Your task to perform on an android device: see creations saved in the google photos Image 0: 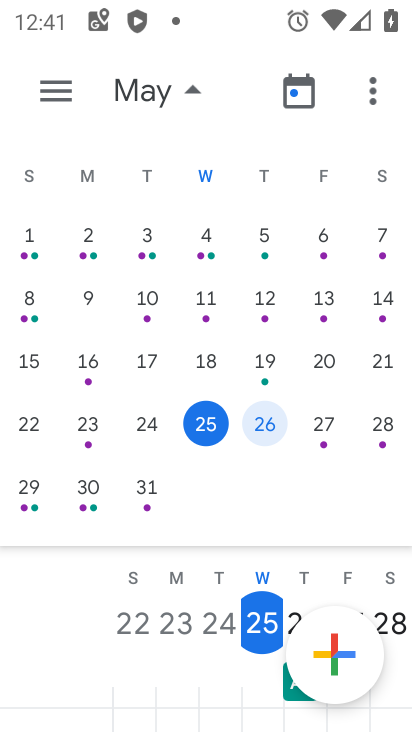
Step 0: press home button
Your task to perform on an android device: see creations saved in the google photos Image 1: 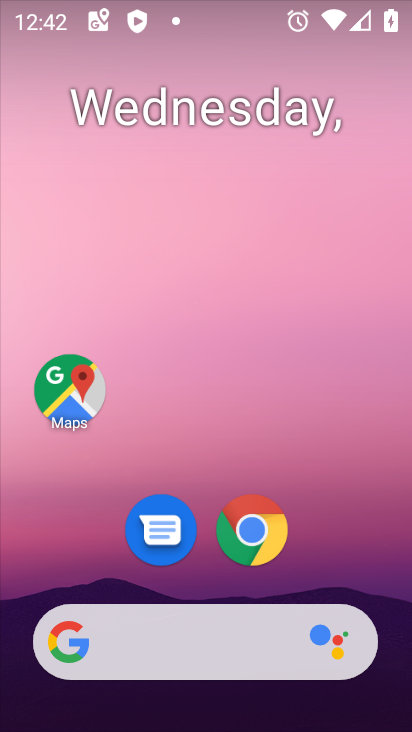
Step 1: drag from (198, 590) to (217, 251)
Your task to perform on an android device: see creations saved in the google photos Image 2: 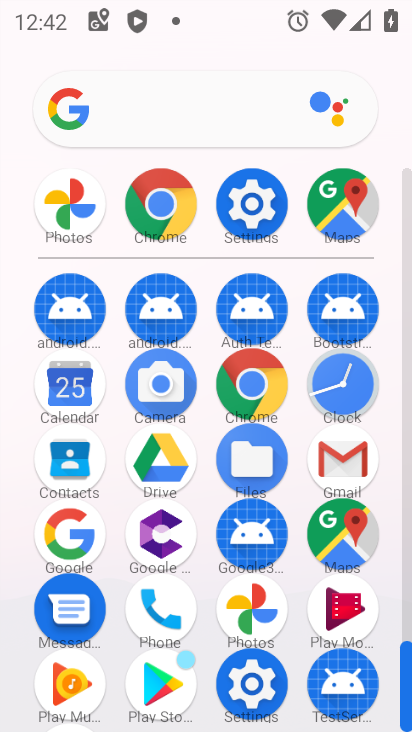
Step 2: click (247, 605)
Your task to perform on an android device: see creations saved in the google photos Image 3: 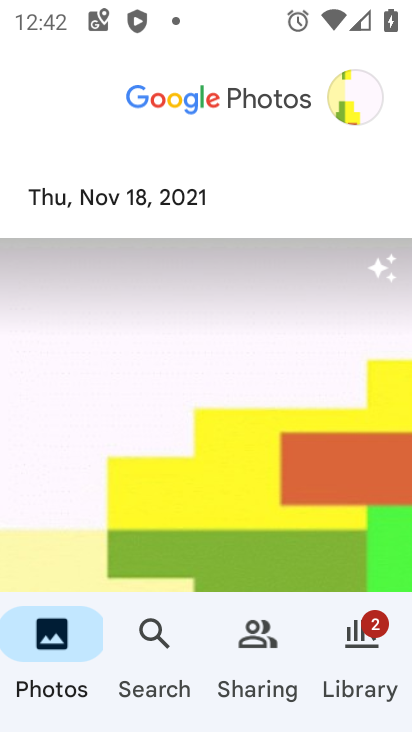
Step 3: click (157, 648)
Your task to perform on an android device: see creations saved in the google photos Image 4: 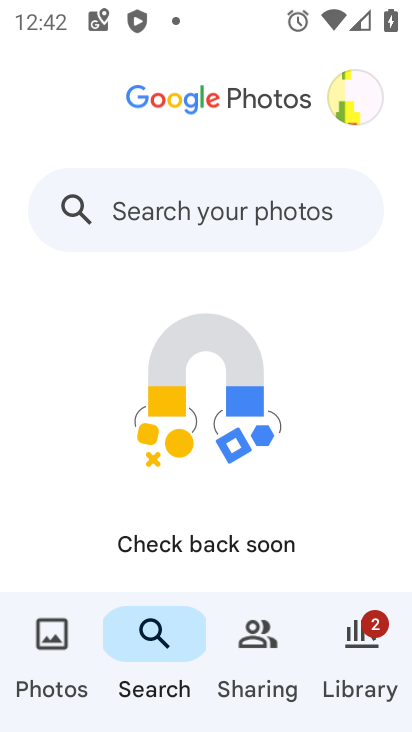
Step 4: click (144, 196)
Your task to perform on an android device: see creations saved in the google photos Image 5: 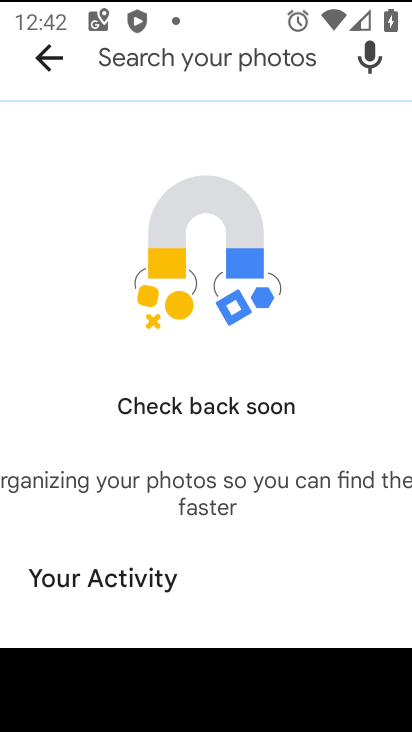
Step 5: type "creation"
Your task to perform on an android device: see creations saved in the google photos Image 6: 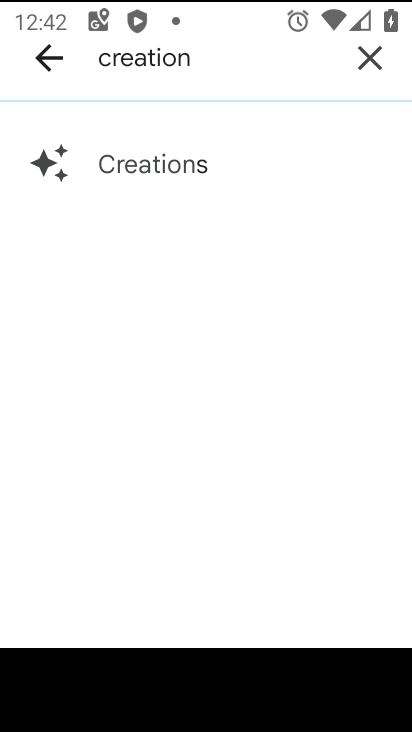
Step 6: click (146, 157)
Your task to perform on an android device: see creations saved in the google photos Image 7: 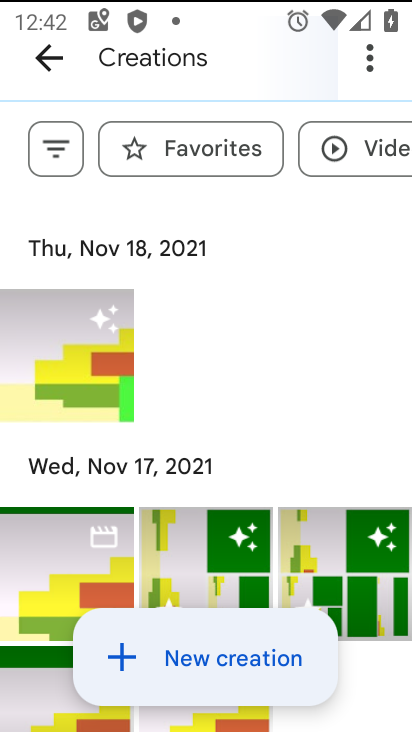
Step 7: task complete